Your task to perform on an android device: set the stopwatch Image 0: 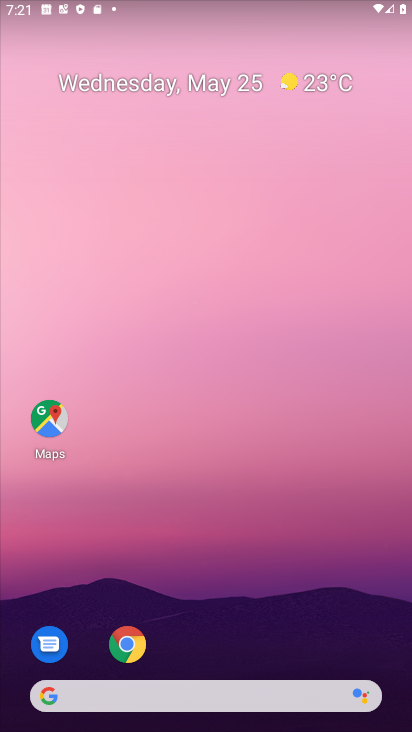
Step 0: drag from (277, 703) to (206, 145)
Your task to perform on an android device: set the stopwatch Image 1: 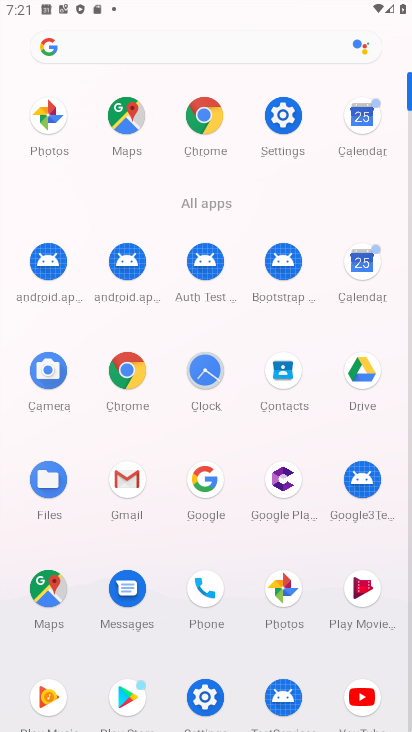
Step 1: click (207, 377)
Your task to perform on an android device: set the stopwatch Image 2: 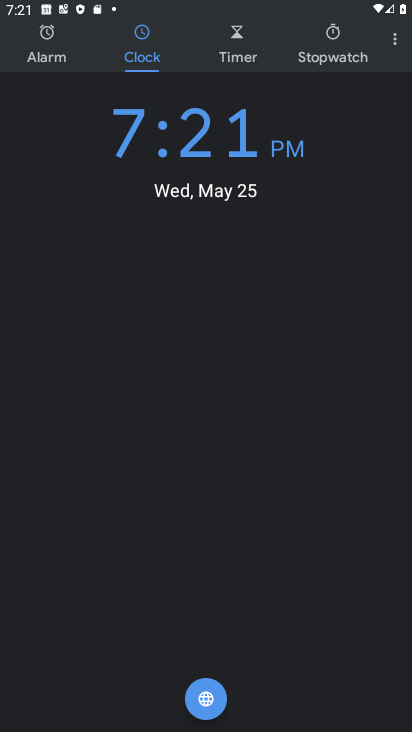
Step 2: click (385, 38)
Your task to perform on an android device: set the stopwatch Image 3: 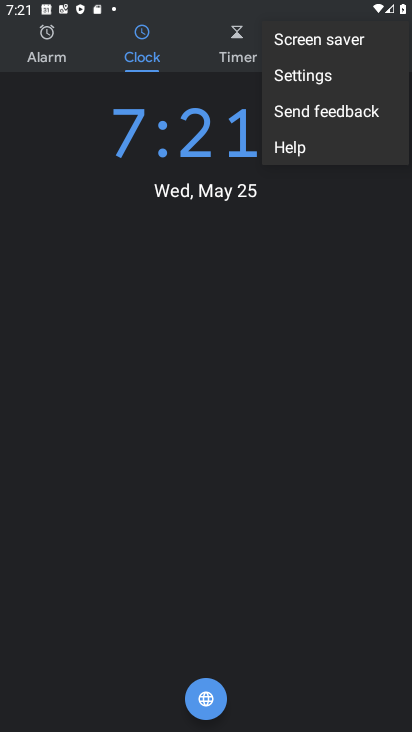
Step 3: click (226, 254)
Your task to perform on an android device: set the stopwatch Image 4: 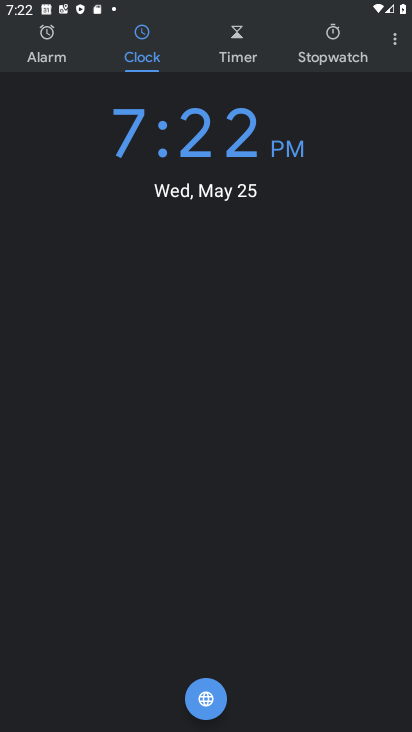
Step 4: click (342, 57)
Your task to perform on an android device: set the stopwatch Image 5: 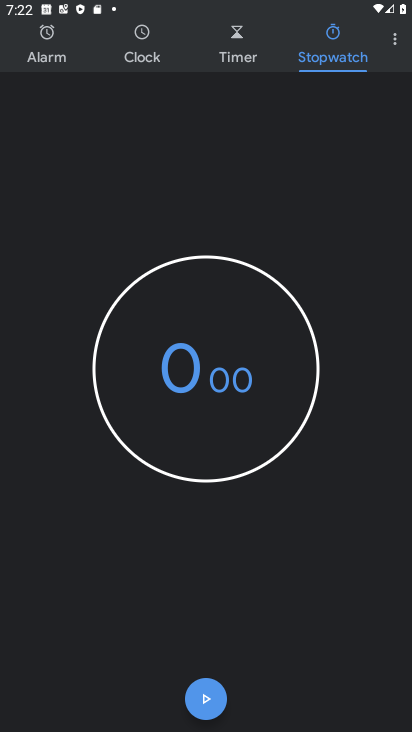
Step 5: click (208, 686)
Your task to perform on an android device: set the stopwatch Image 6: 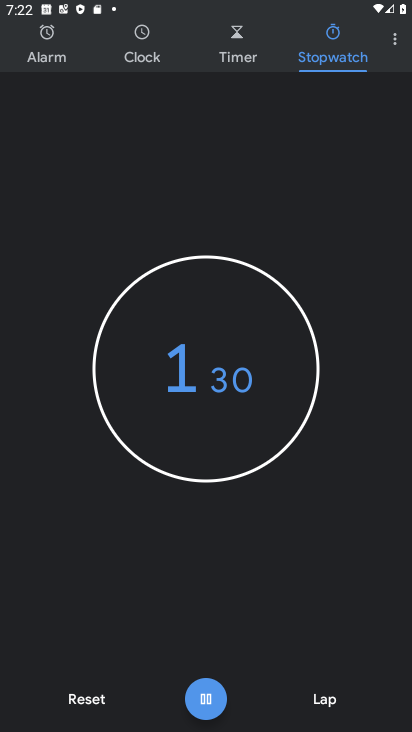
Step 6: task complete